Your task to perform on an android device: uninstall "Google Photos" Image 0: 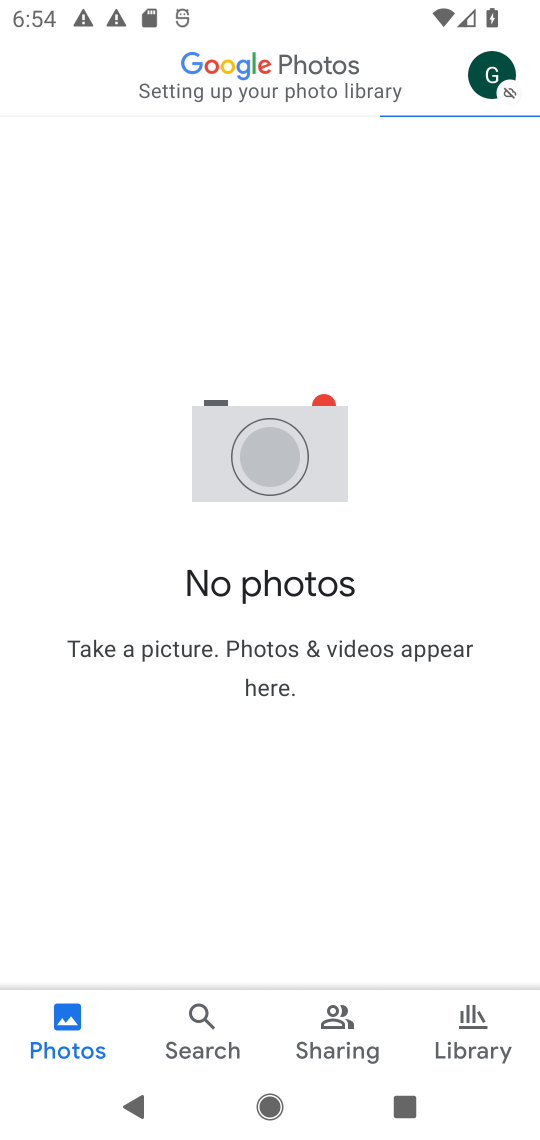
Step 0: press back button
Your task to perform on an android device: uninstall "Google Photos" Image 1: 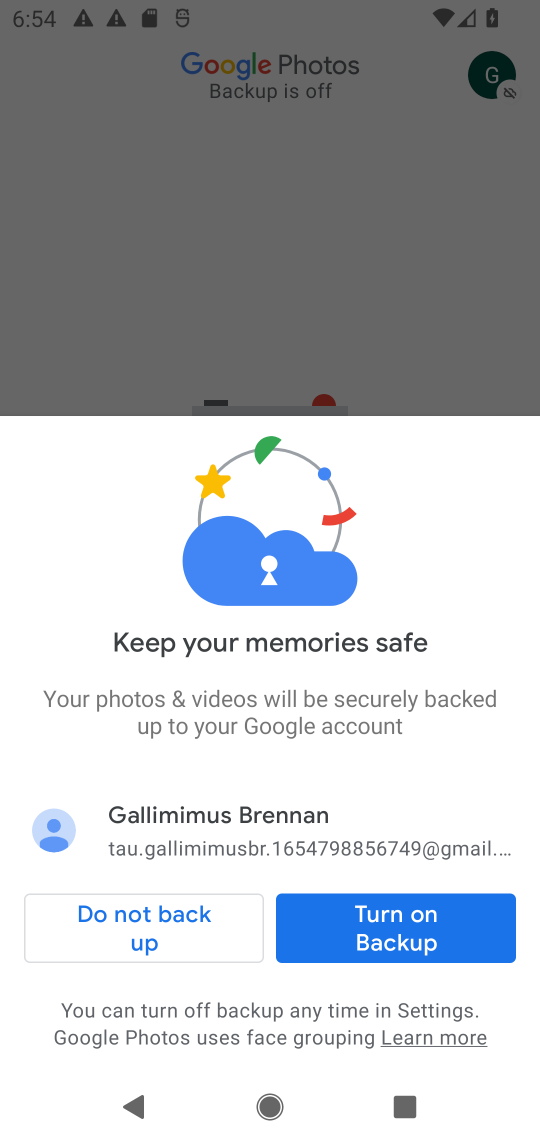
Step 1: click (236, 270)
Your task to perform on an android device: uninstall "Google Photos" Image 2: 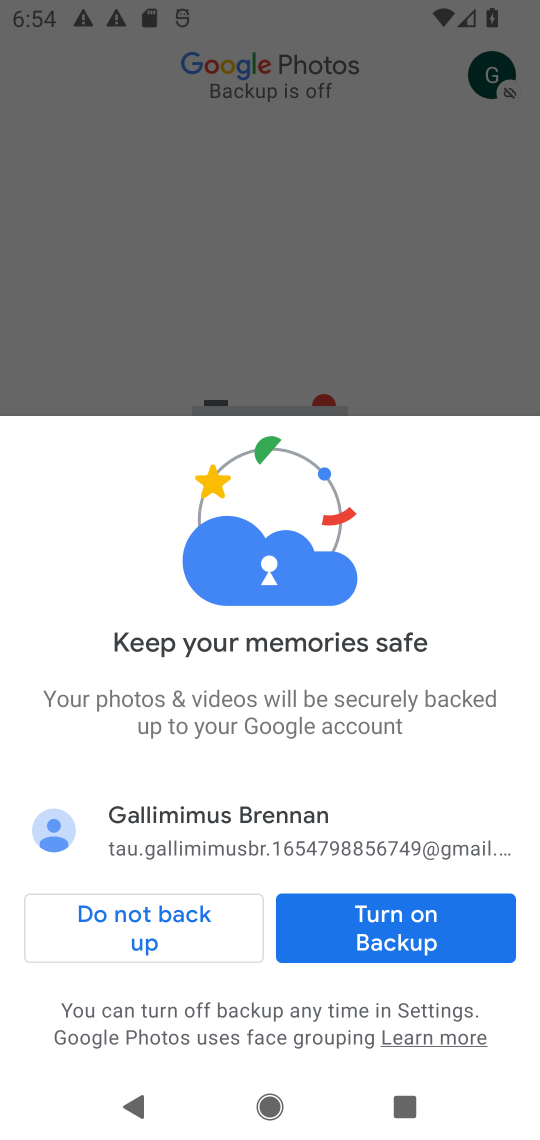
Step 2: click (237, 268)
Your task to perform on an android device: uninstall "Google Photos" Image 3: 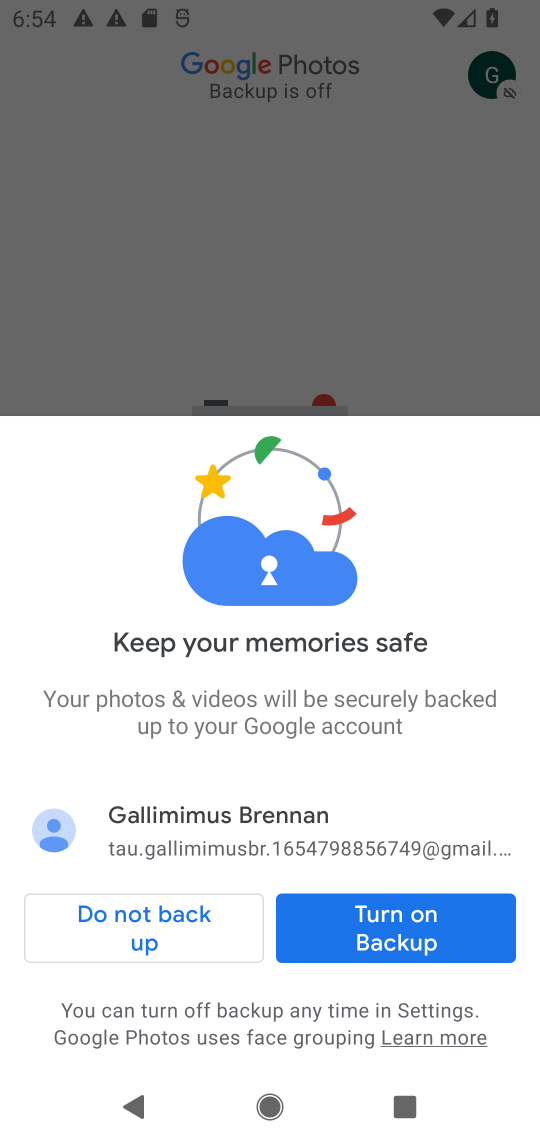
Step 3: click (237, 268)
Your task to perform on an android device: uninstall "Google Photos" Image 4: 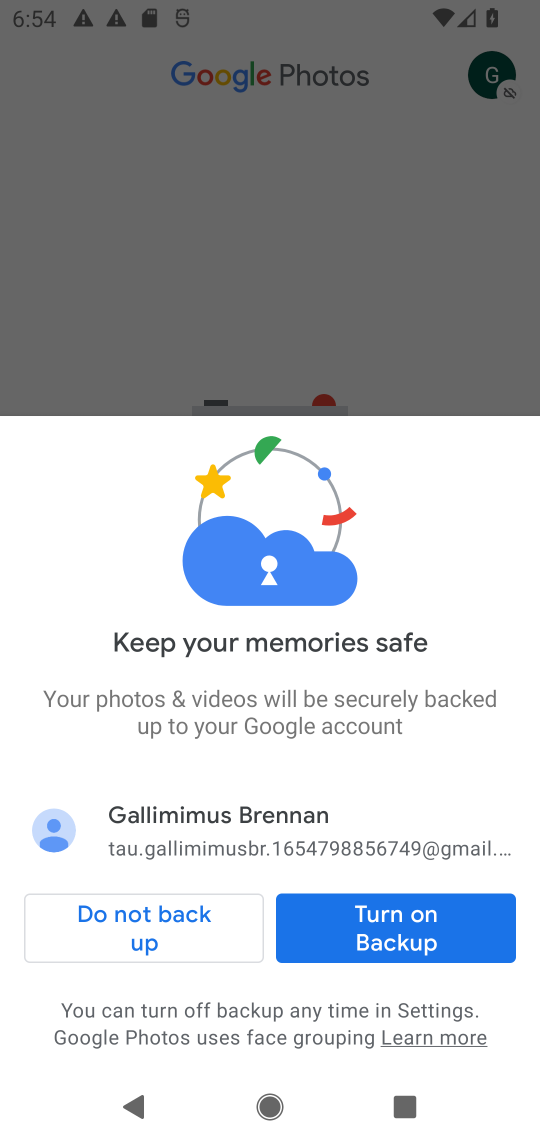
Step 4: click (436, 324)
Your task to perform on an android device: uninstall "Google Photos" Image 5: 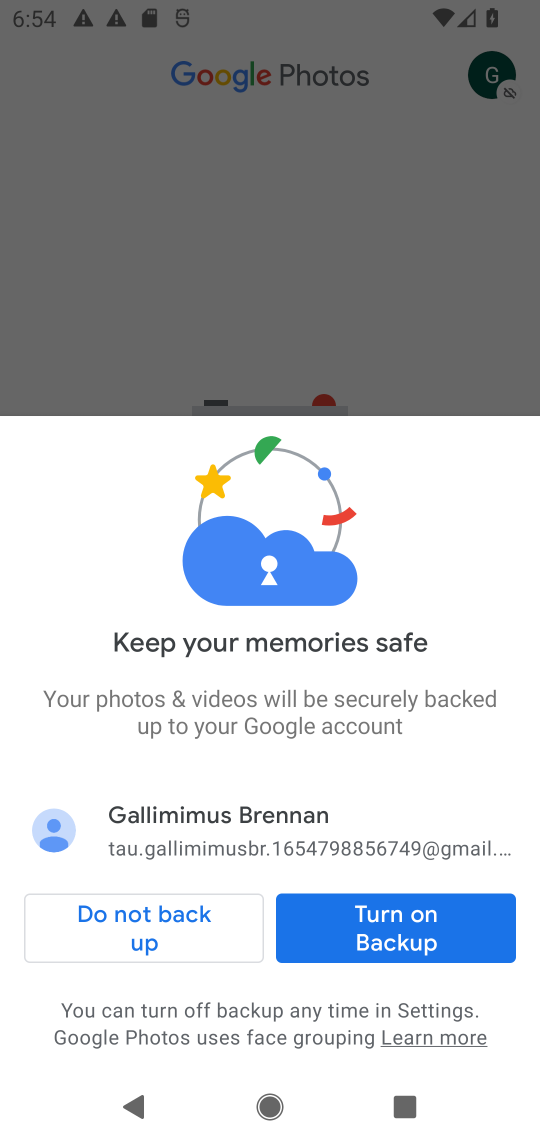
Step 5: press back button
Your task to perform on an android device: uninstall "Google Photos" Image 6: 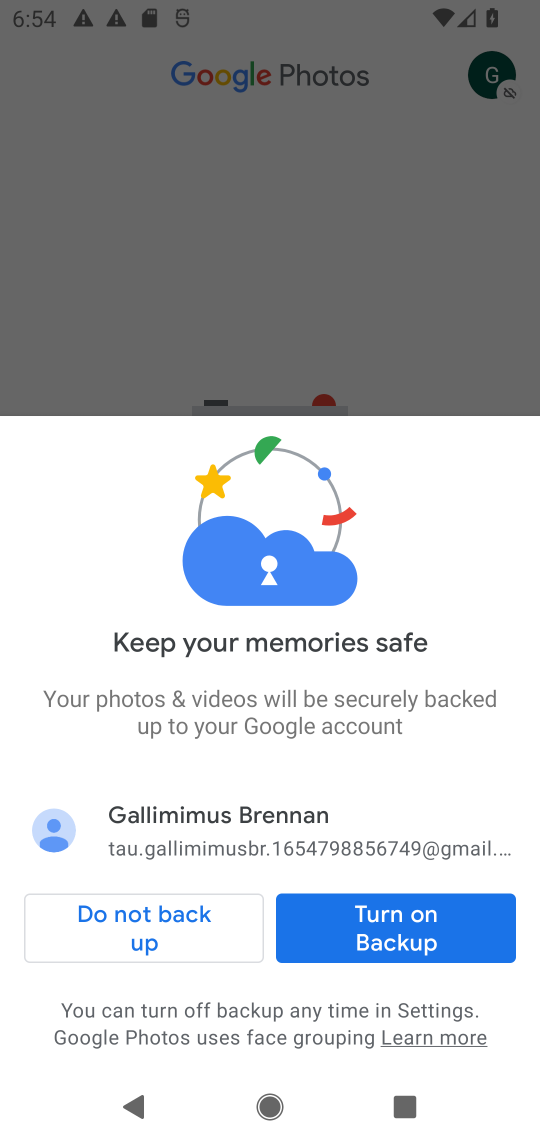
Step 6: press back button
Your task to perform on an android device: uninstall "Google Photos" Image 7: 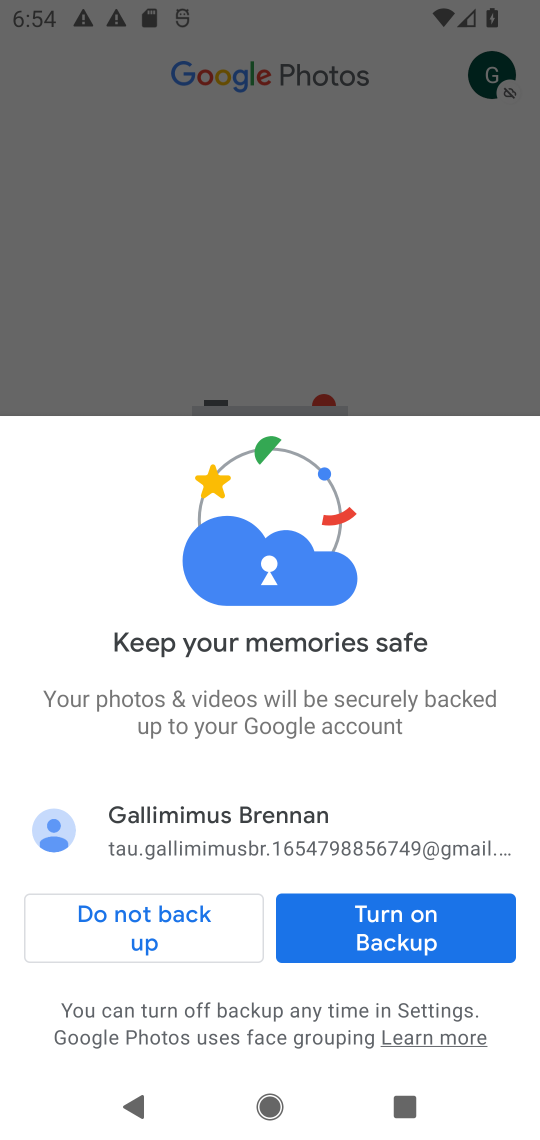
Step 7: press back button
Your task to perform on an android device: uninstall "Google Photos" Image 8: 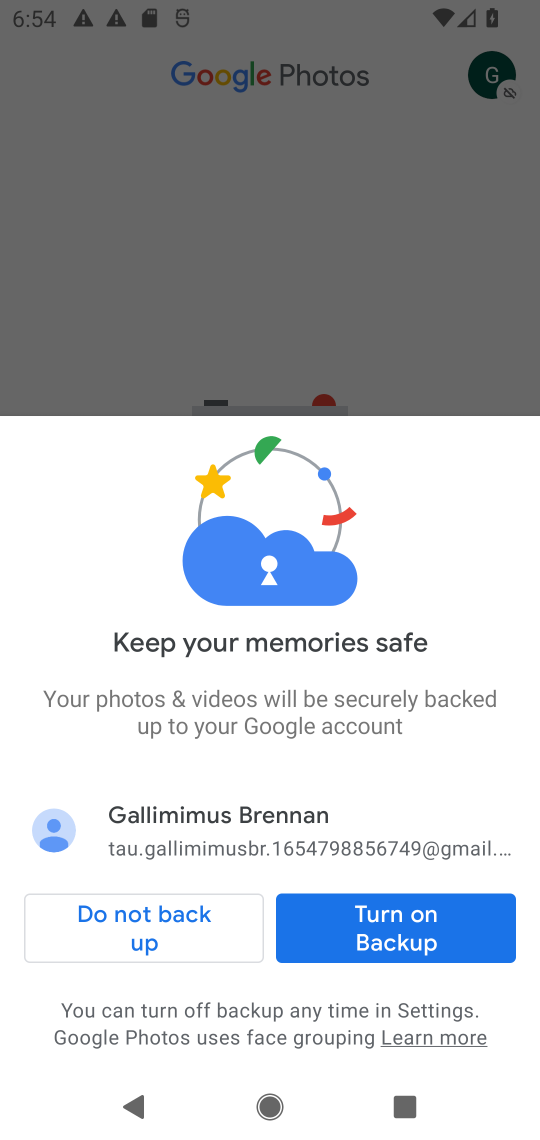
Step 8: press back button
Your task to perform on an android device: uninstall "Google Photos" Image 9: 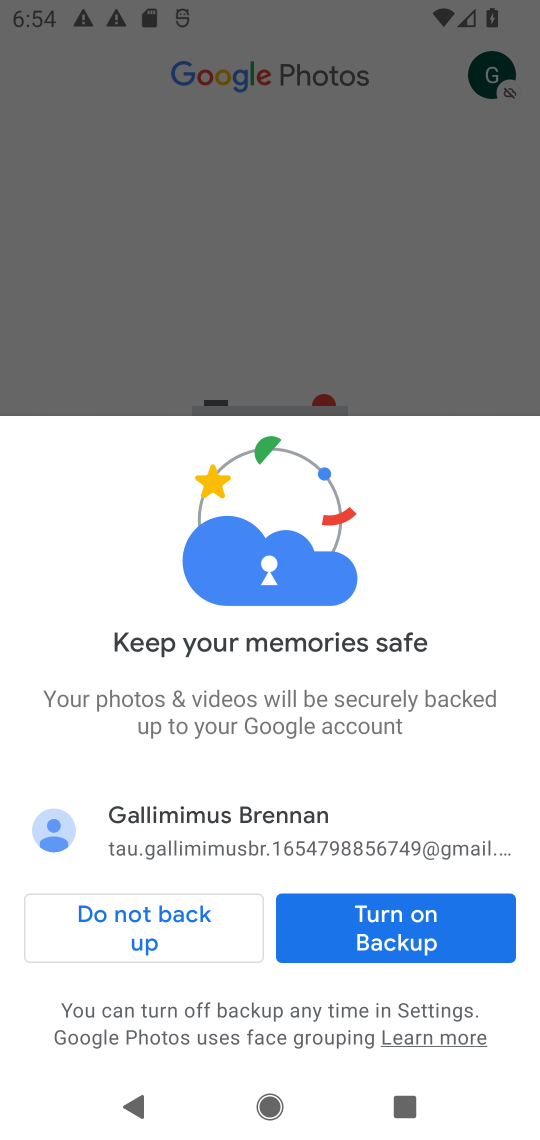
Step 9: click (354, 332)
Your task to perform on an android device: uninstall "Google Photos" Image 10: 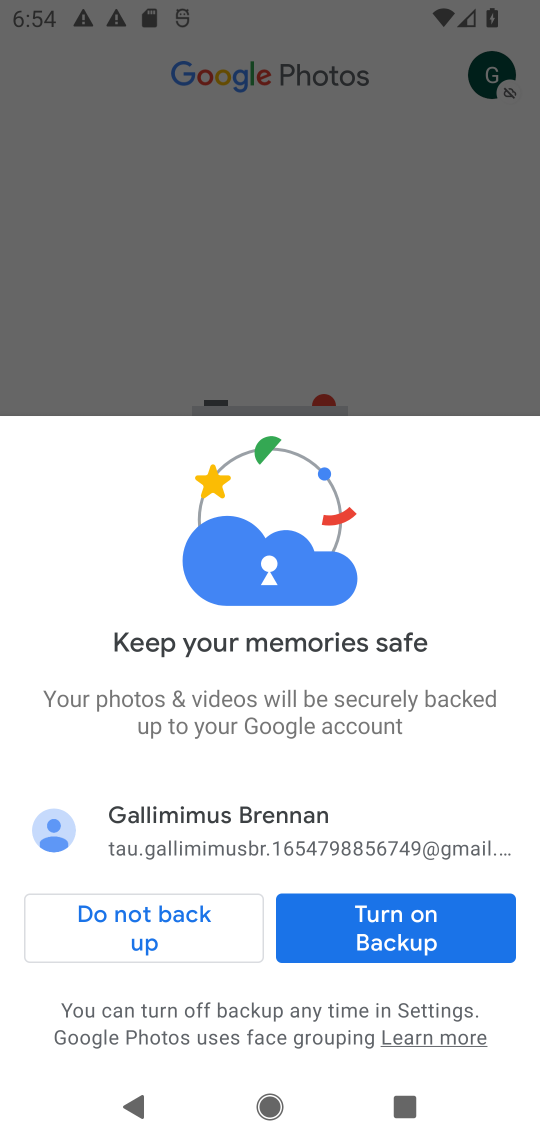
Step 10: click (351, 324)
Your task to perform on an android device: uninstall "Google Photos" Image 11: 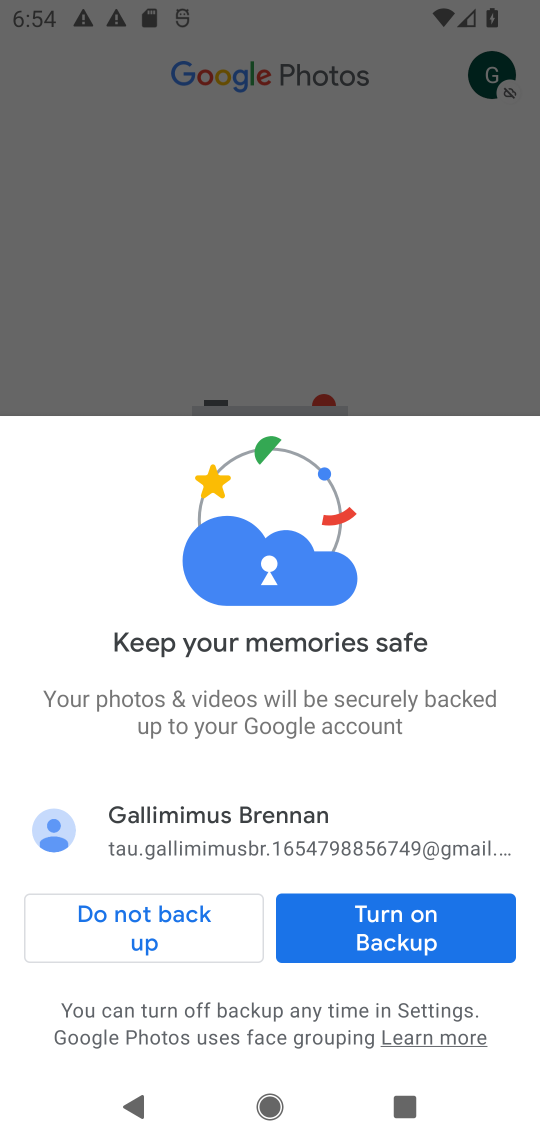
Step 11: click (352, 320)
Your task to perform on an android device: uninstall "Google Photos" Image 12: 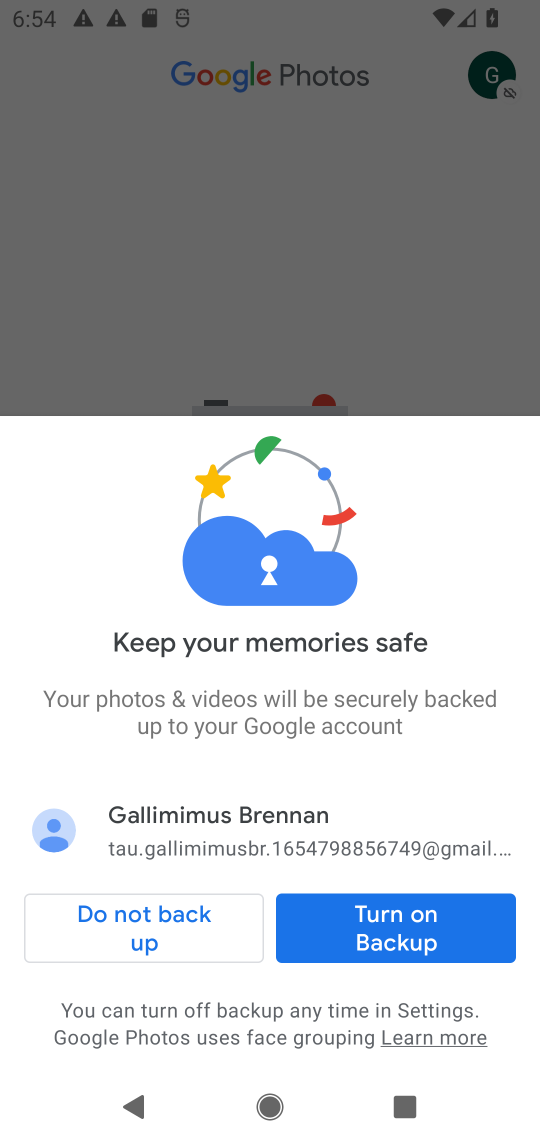
Step 12: click (355, 317)
Your task to perform on an android device: uninstall "Google Photos" Image 13: 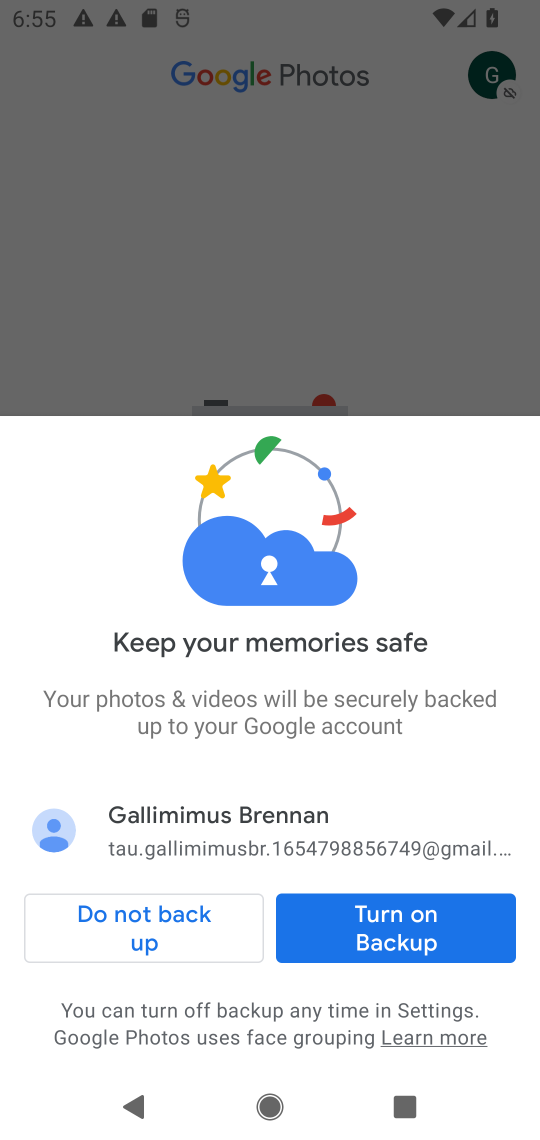
Step 13: click (277, 317)
Your task to perform on an android device: uninstall "Google Photos" Image 14: 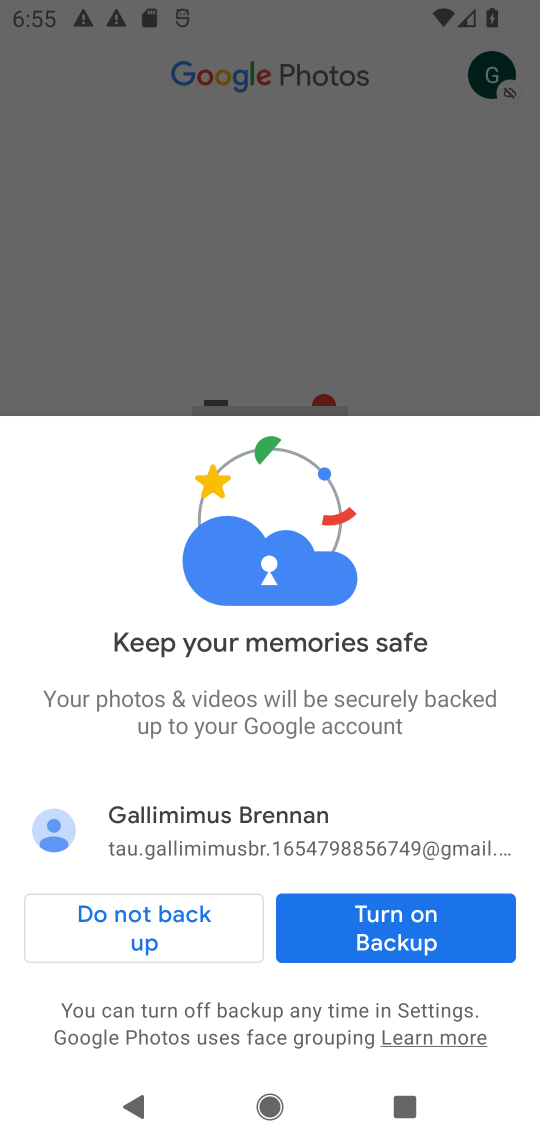
Step 14: click (301, 300)
Your task to perform on an android device: uninstall "Google Photos" Image 15: 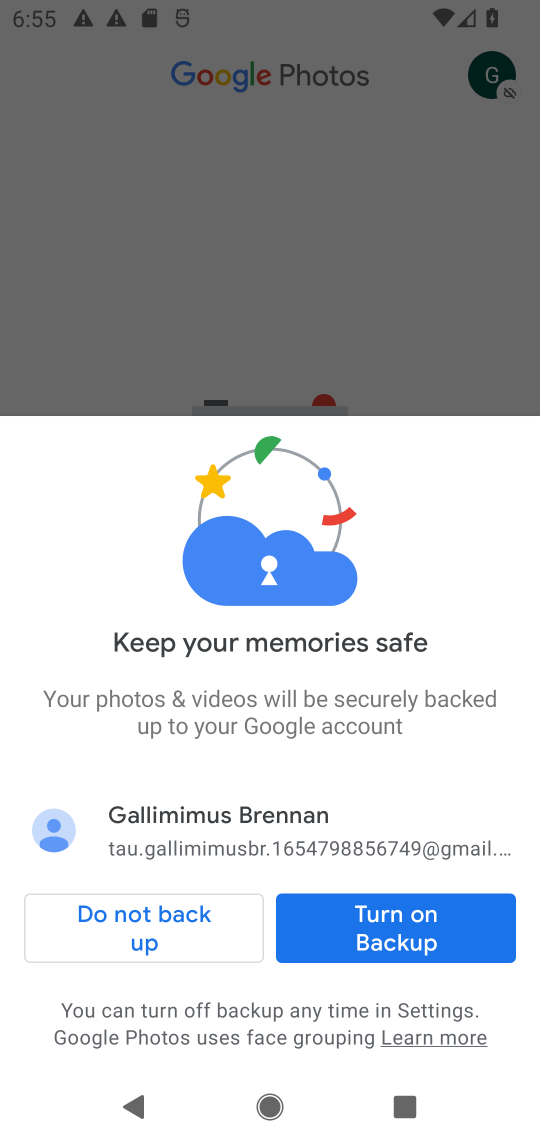
Step 15: click (306, 295)
Your task to perform on an android device: uninstall "Google Photos" Image 16: 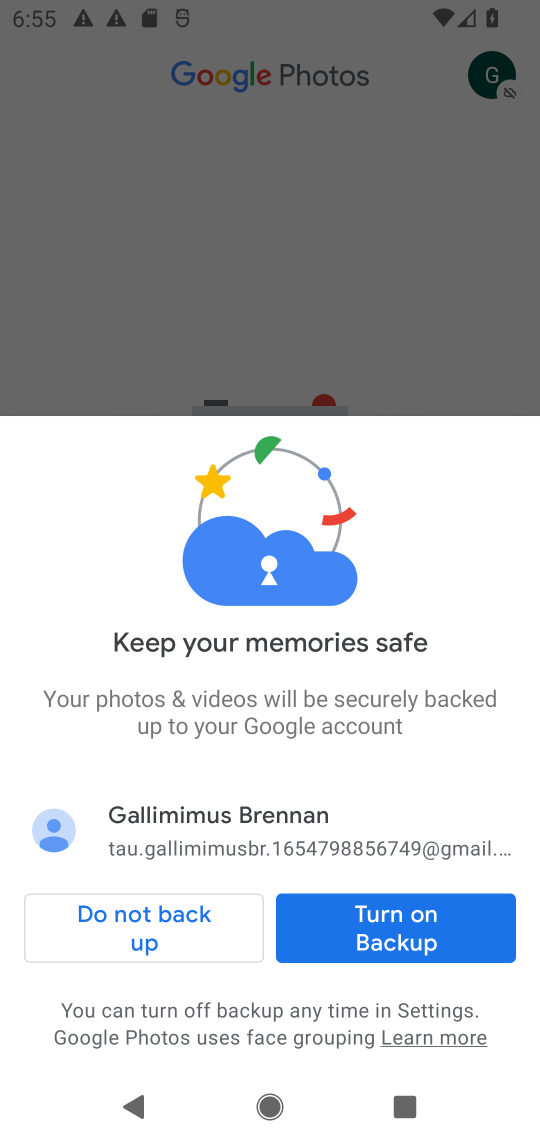
Step 16: press back button
Your task to perform on an android device: uninstall "Google Photos" Image 17: 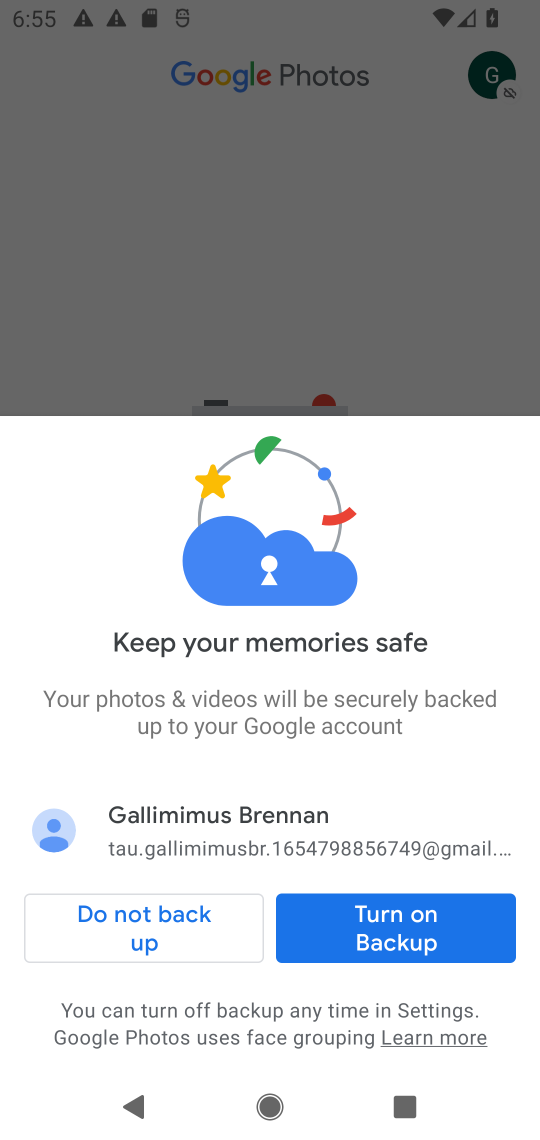
Step 17: press back button
Your task to perform on an android device: uninstall "Google Photos" Image 18: 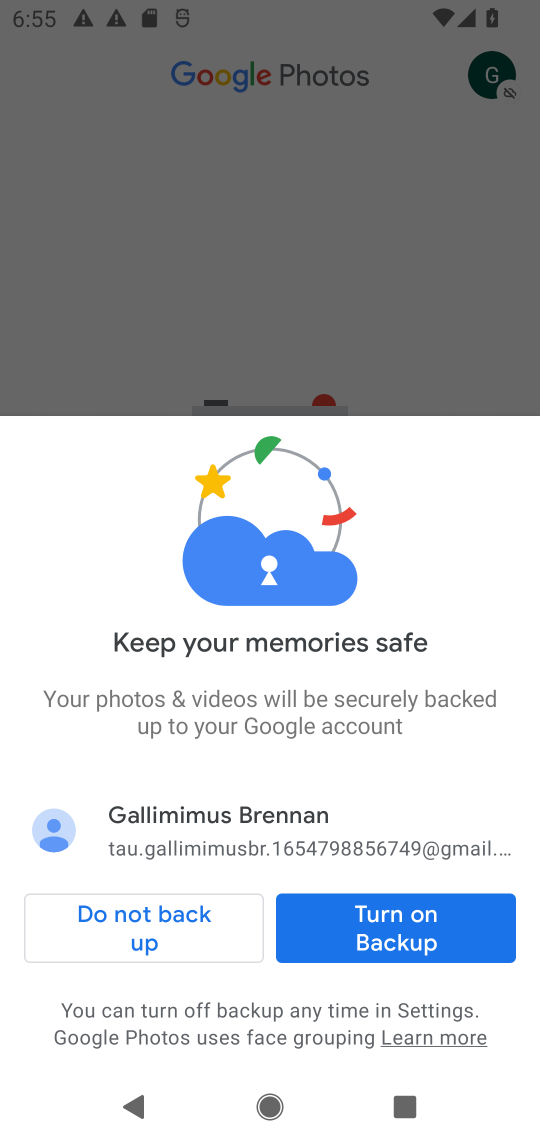
Step 18: click (188, 299)
Your task to perform on an android device: uninstall "Google Photos" Image 19: 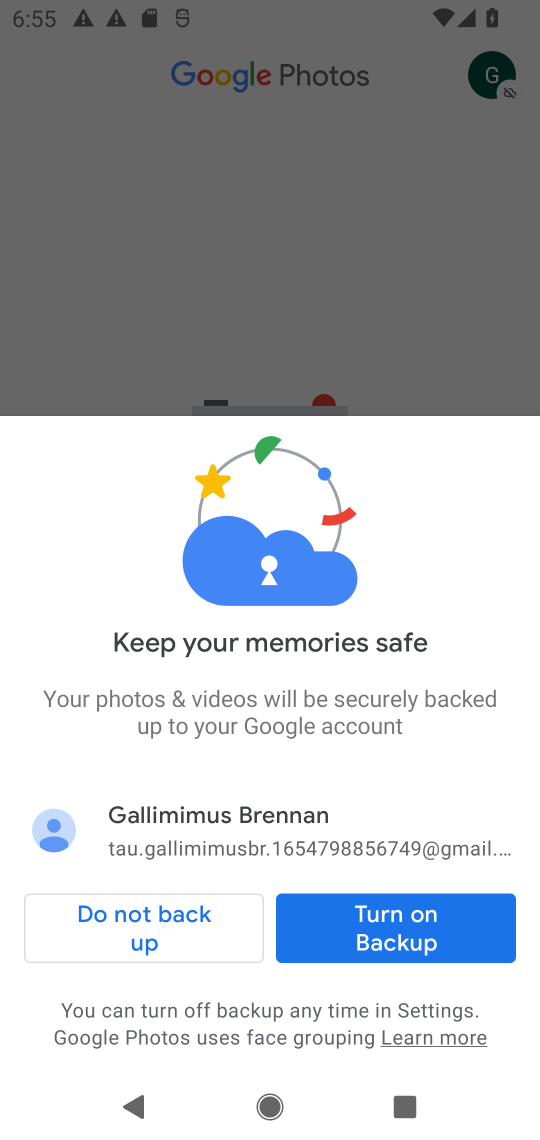
Step 19: click (188, 299)
Your task to perform on an android device: uninstall "Google Photos" Image 20: 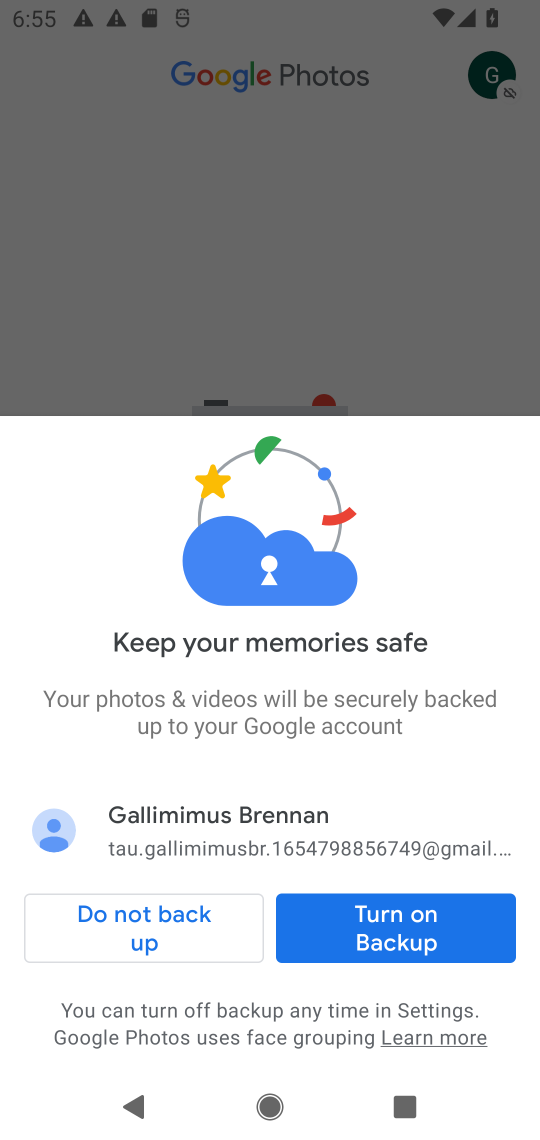
Step 20: click (189, 301)
Your task to perform on an android device: uninstall "Google Photos" Image 21: 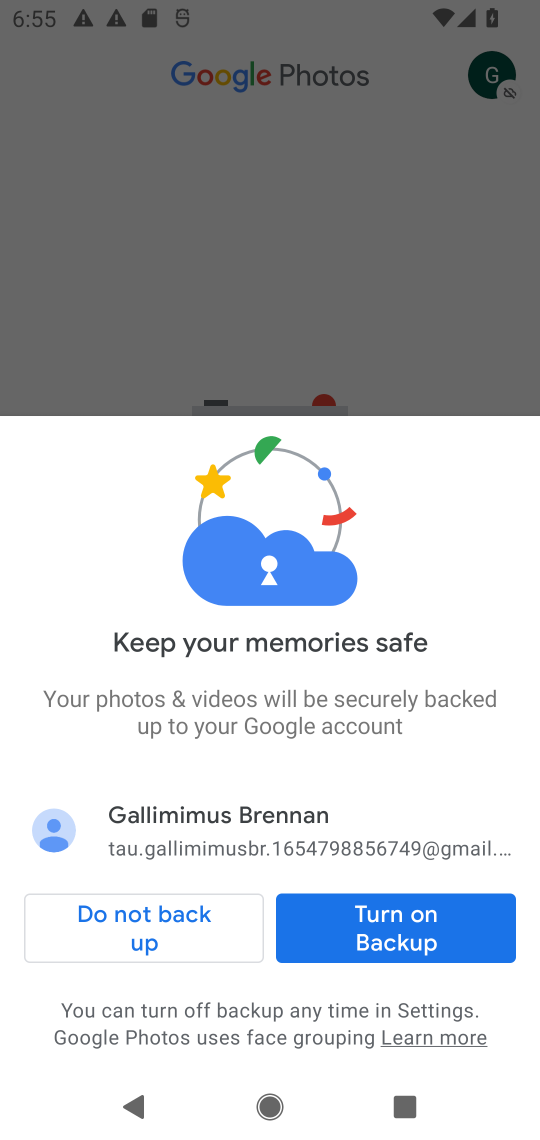
Step 21: press home button
Your task to perform on an android device: uninstall "Google Photos" Image 22: 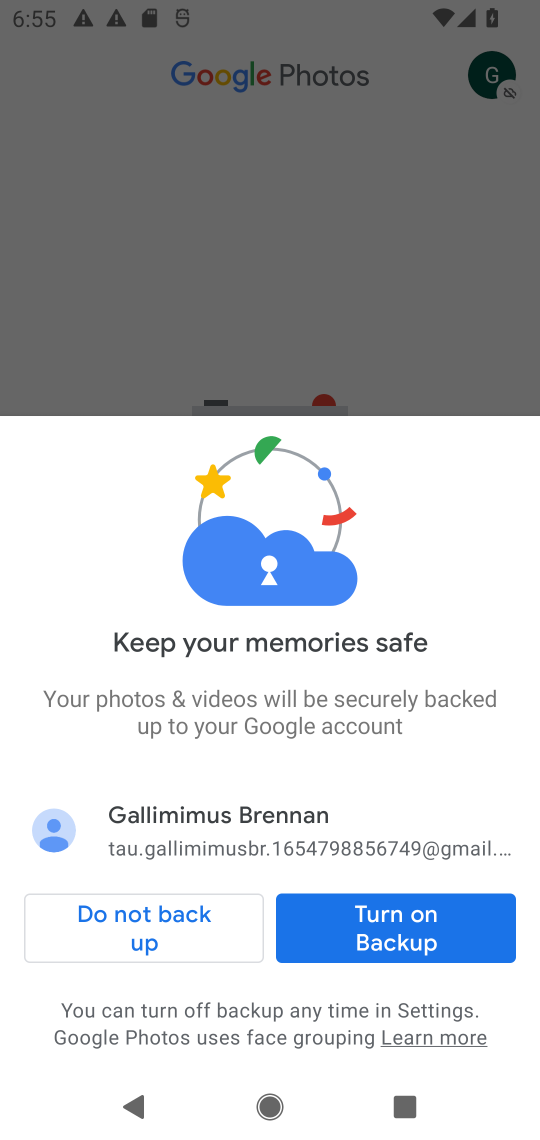
Step 22: press home button
Your task to perform on an android device: uninstall "Google Photos" Image 23: 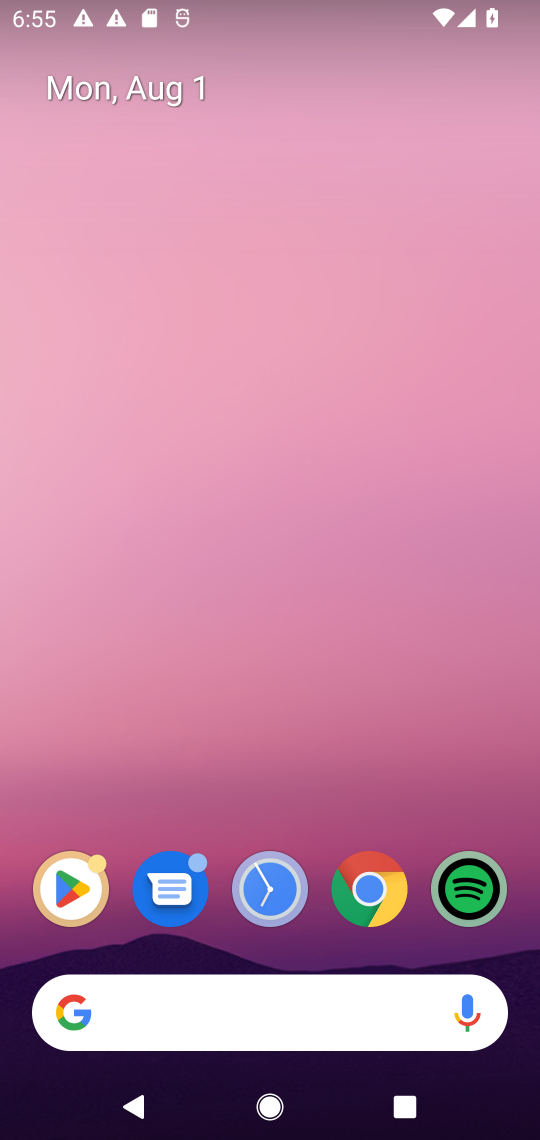
Step 23: drag from (331, 919) to (343, 246)
Your task to perform on an android device: uninstall "Google Photos" Image 24: 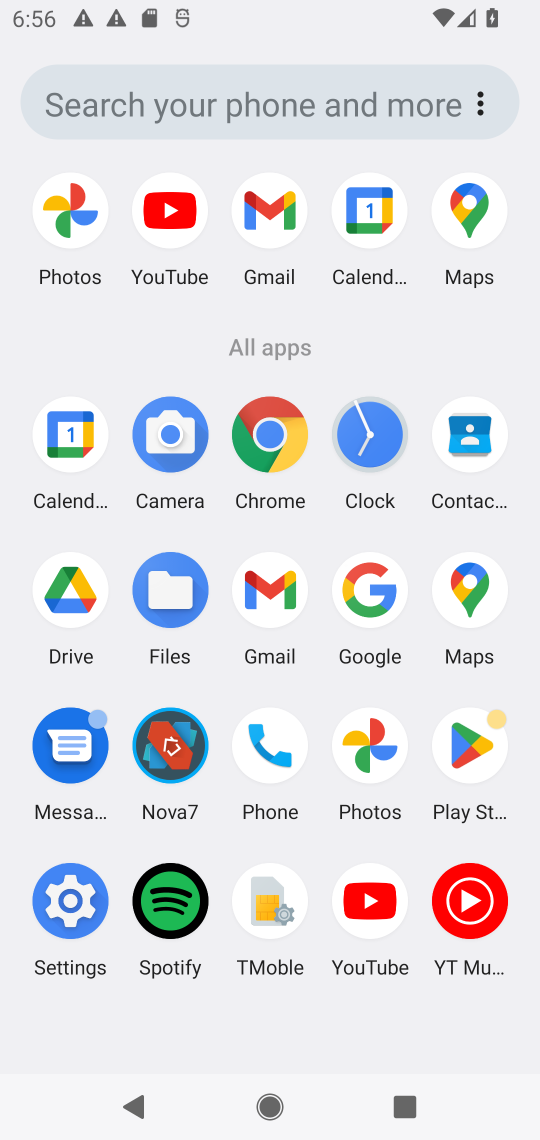
Step 24: click (453, 756)
Your task to perform on an android device: uninstall "Google Photos" Image 25: 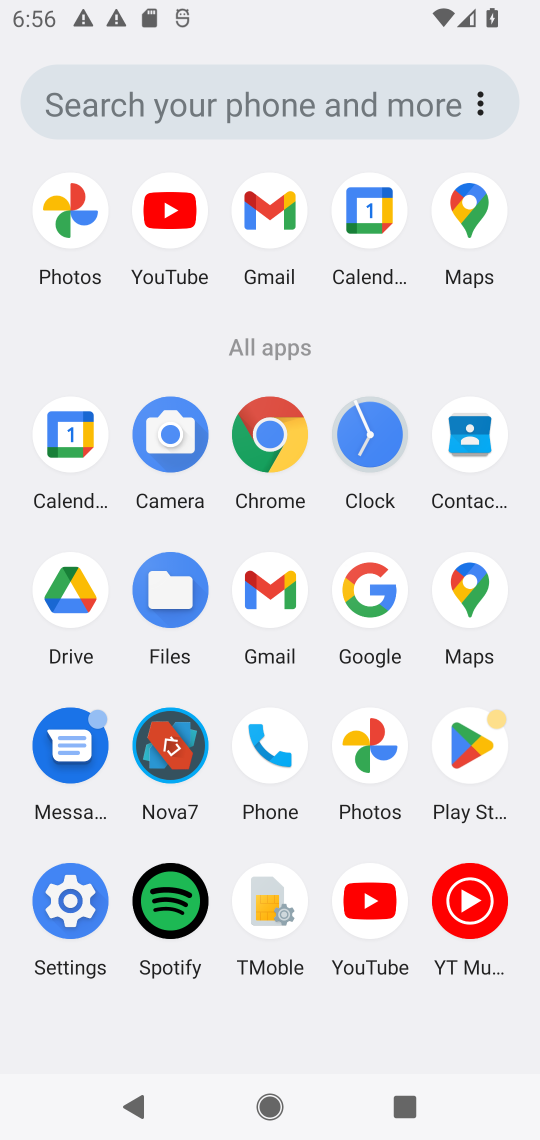
Step 25: click (471, 737)
Your task to perform on an android device: uninstall "Google Photos" Image 26: 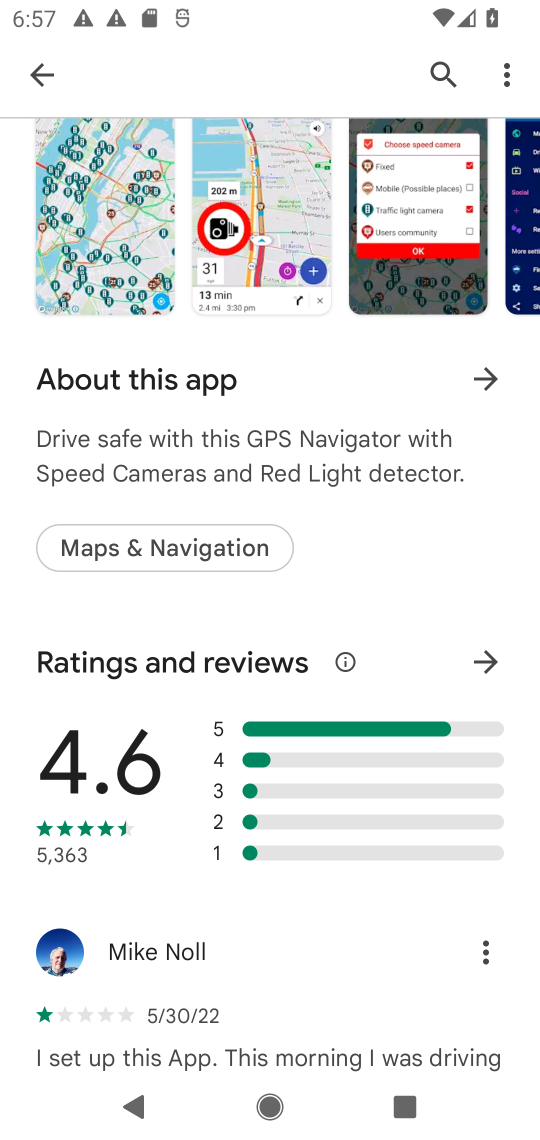
Step 26: click (41, 63)
Your task to perform on an android device: uninstall "Google Photos" Image 27: 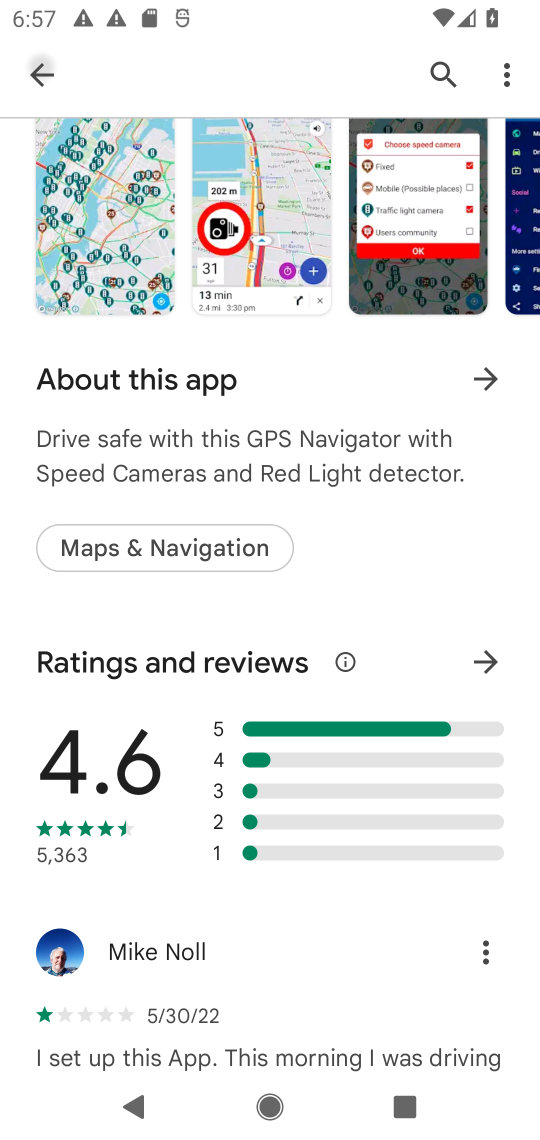
Step 27: click (32, 73)
Your task to perform on an android device: uninstall "Google Photos" Image 28: 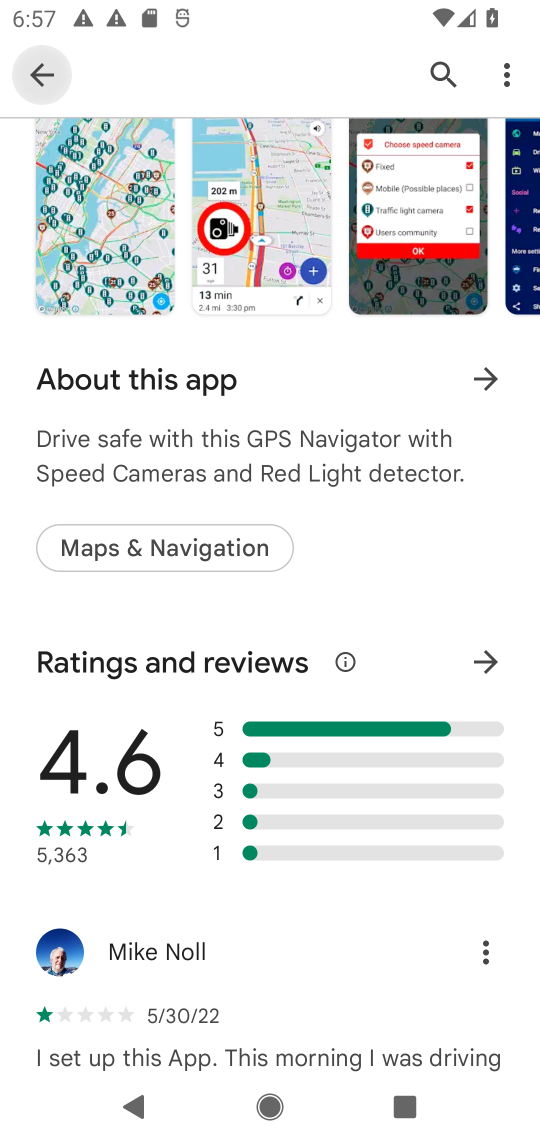
Step 28: click (32, 73)
Your task to perform on an android device: uninstall "Google Photos" Image 29: 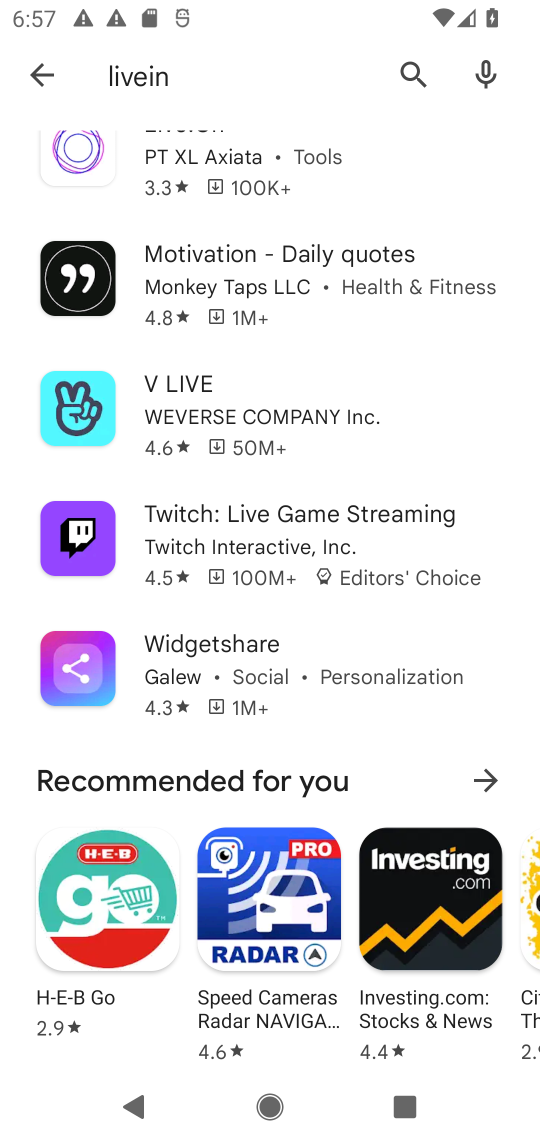
Step 29: click (38, 73)
Your task to perform on an android device: uninstall "Google Photos" Image 30: 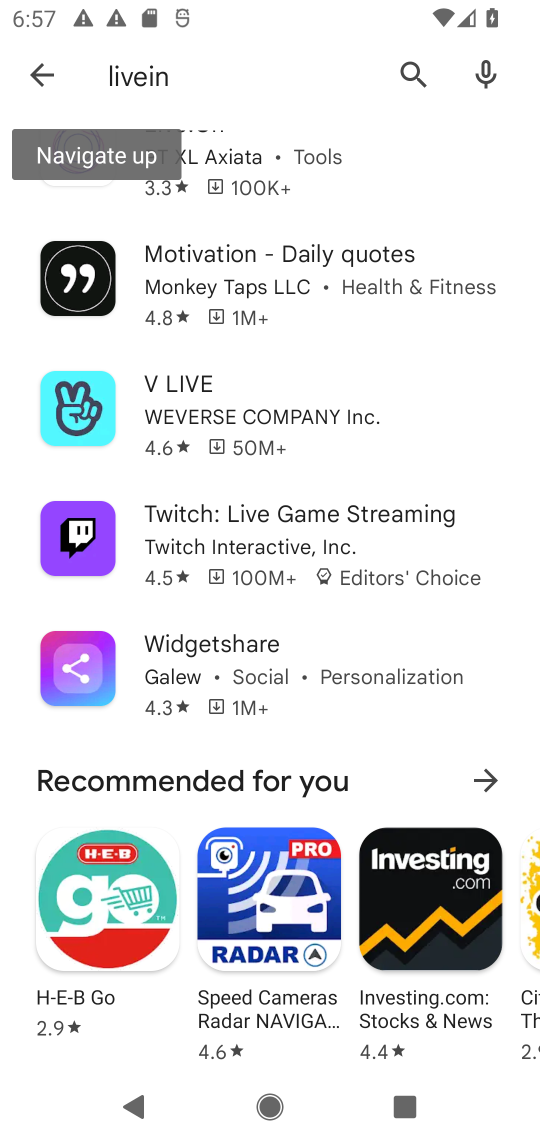
Step 30: click (36, 69)
Your task to perform on an android device: uninstall "Google Photos" Image 31: 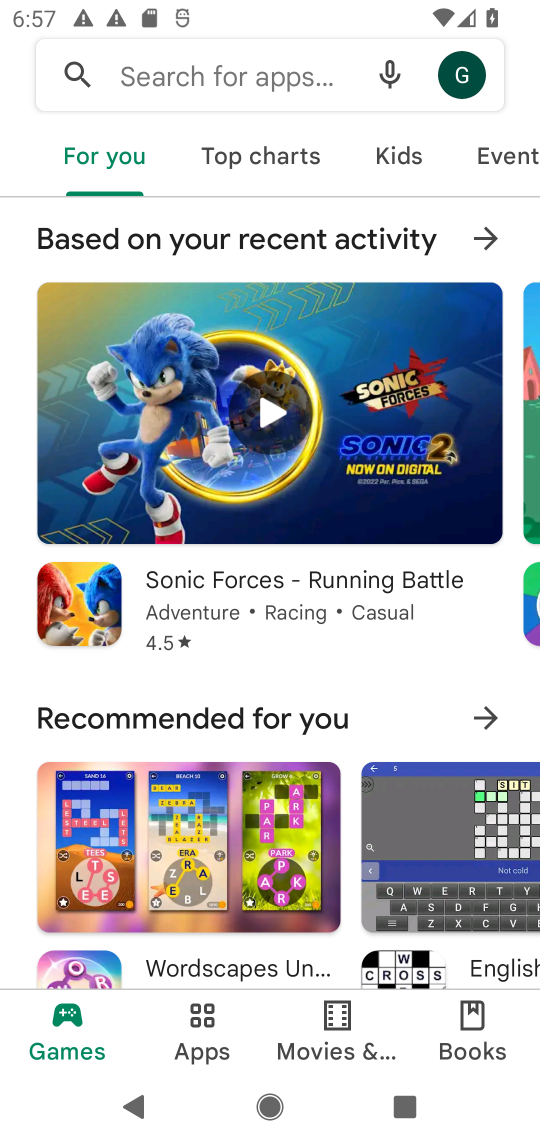
Step 31: click (225, 88)
Your task to perform on an android device: uninstall "Google Photos" Image 32: 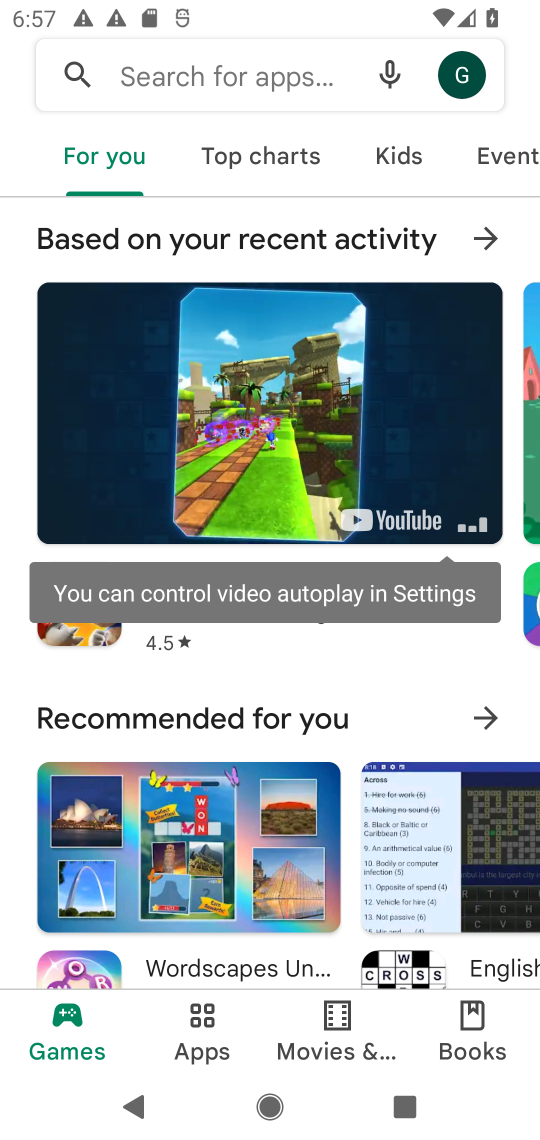
Step 32: click (216, 80)
Your task to perform on an android device: uninstall "Google Photos" Image 33: 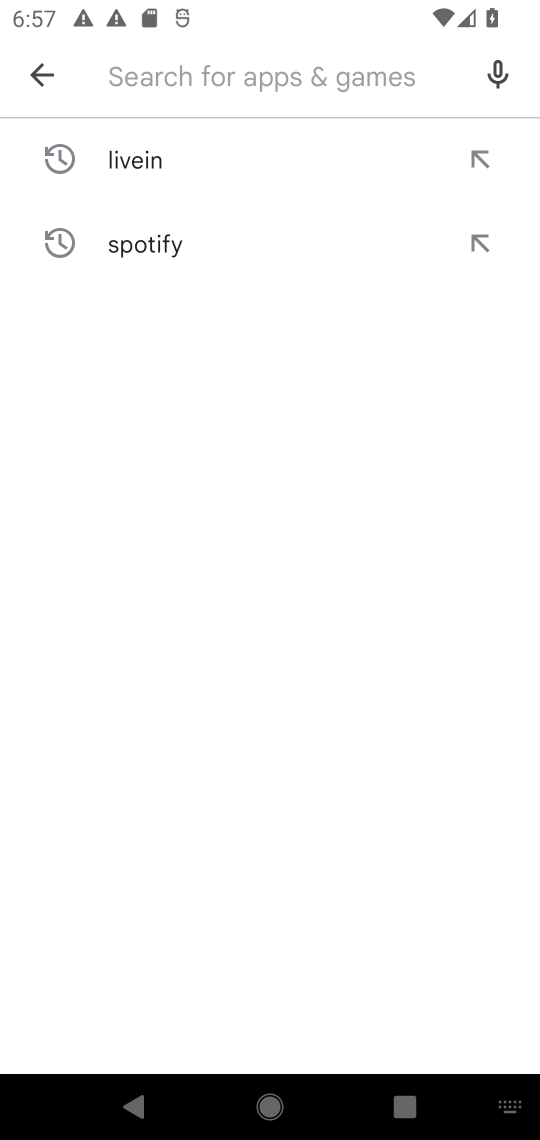
Step 33: click (185, 75)
Your task to perform on an android device: uninstall "Google Photos" Image 34: 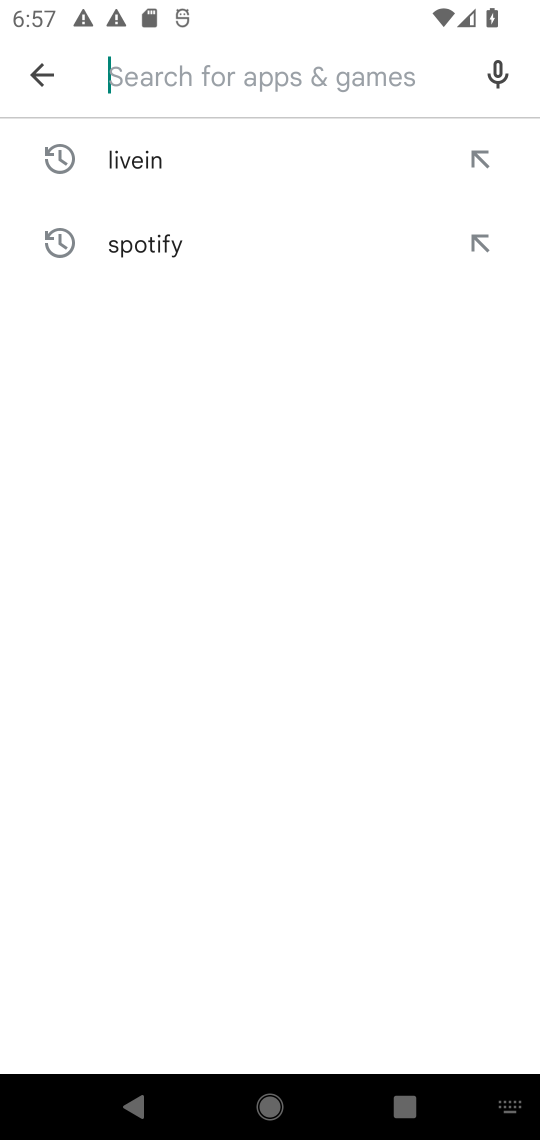
Step 34: click (187, 73)
Your task to perform on an android device: uninstall "Google Photos" Image 35: 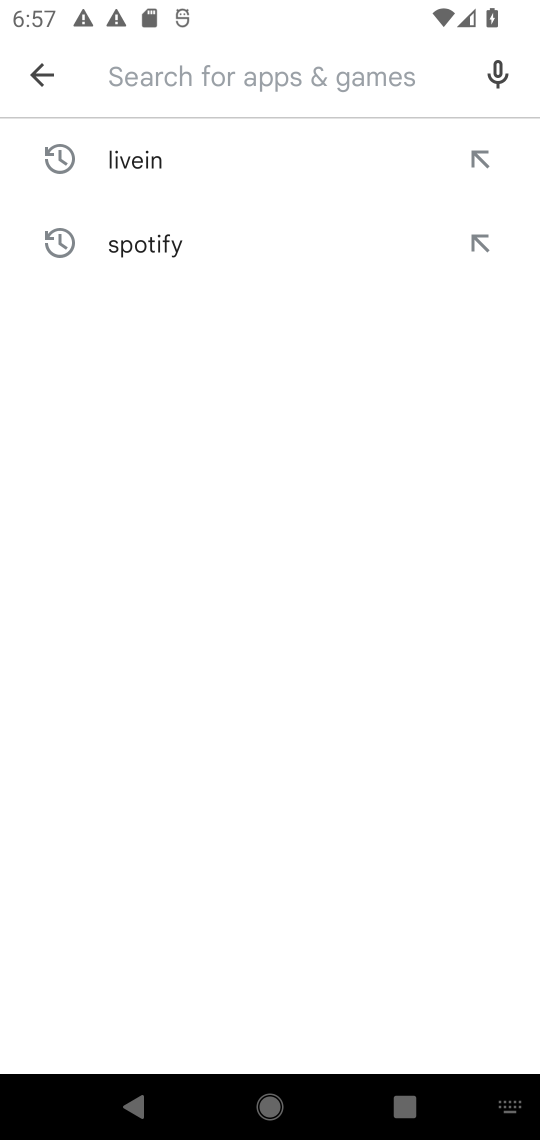
Step 35: type "Google Photos"
Your task to perform on an android device: uninstall "Google Photos" Image 36: 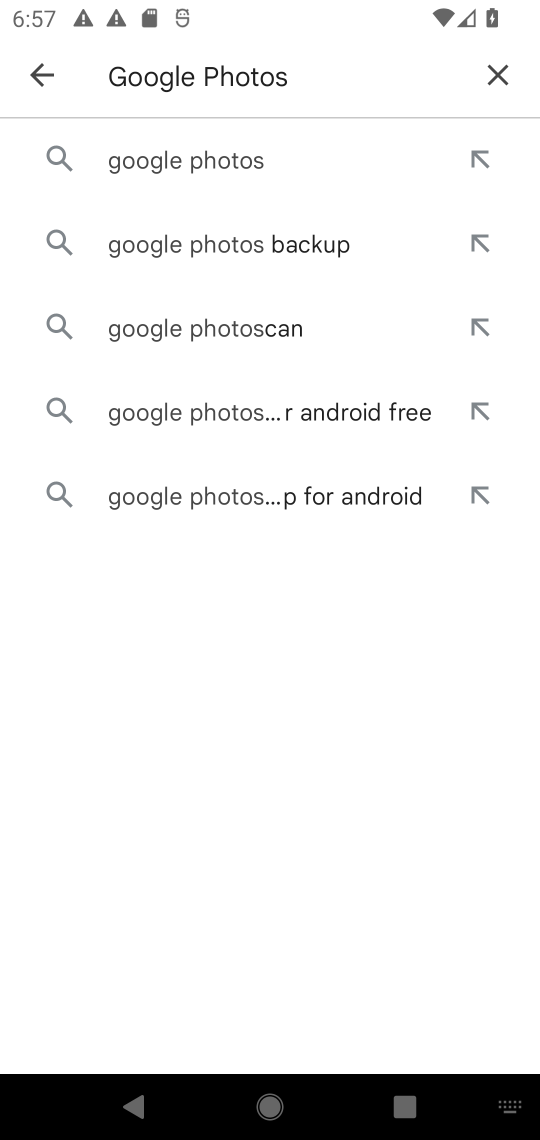
Step 36: click (203, 160)
Your task to perform on an android device: uninstall "Google Photos" Image 37: 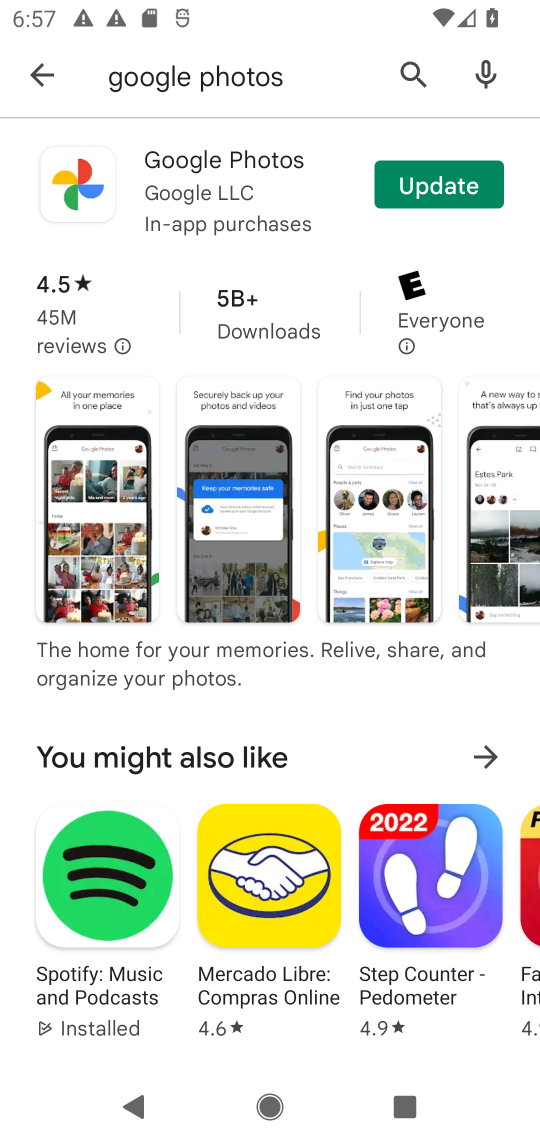
Step 37: click (210, 160)
Your task to perform on an android device: uninstall "Google Photos" Image 38: 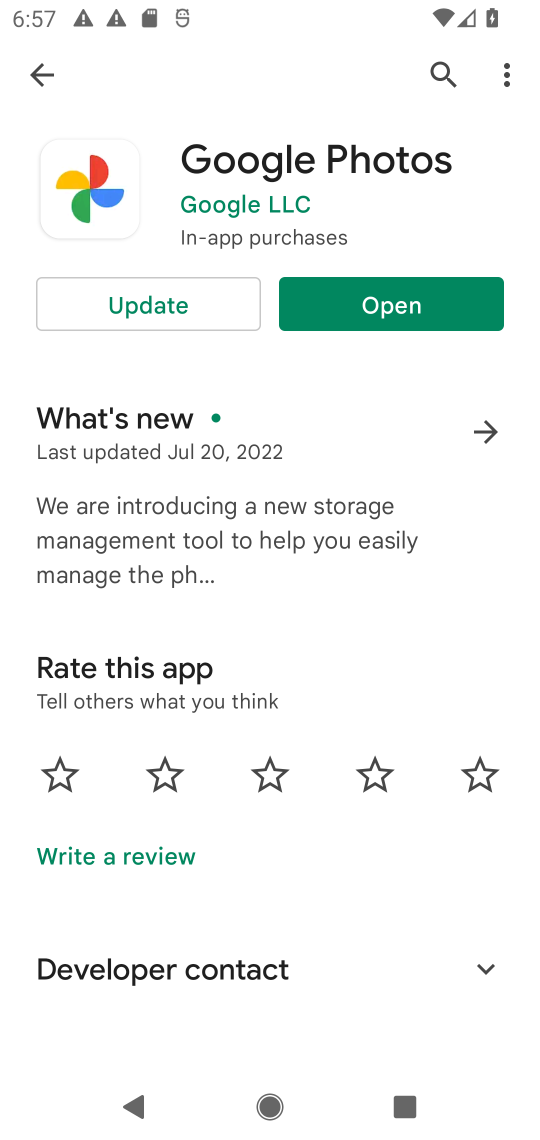
Step 38: click (35, 72)
Your task to perform on an android device: uninstall "Google Photos" Image 39: 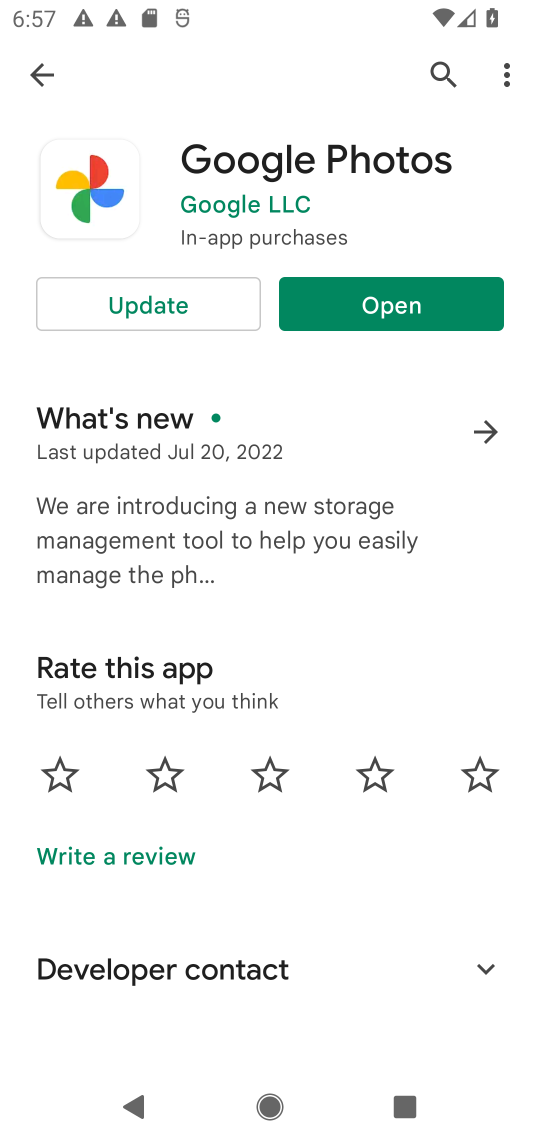
Step 39: drag from (507, 75) to (412, 469)
Your task to perform on an android device: uninstall "Google Photos" Image 40: 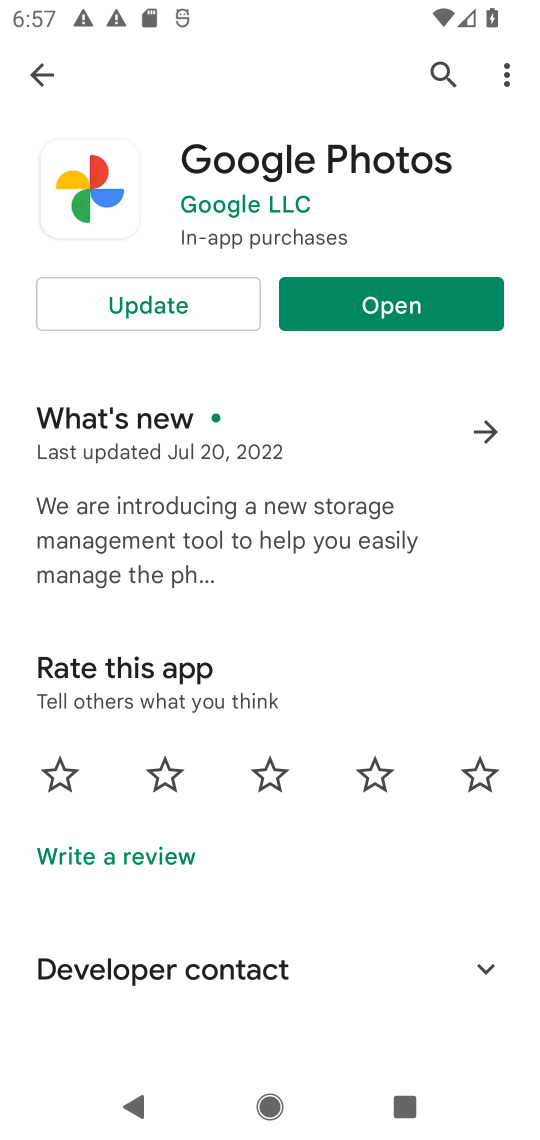
Step 40: click (404, 438)
Your task to perform on an android device: uninstall "Google Photos" Image 41: 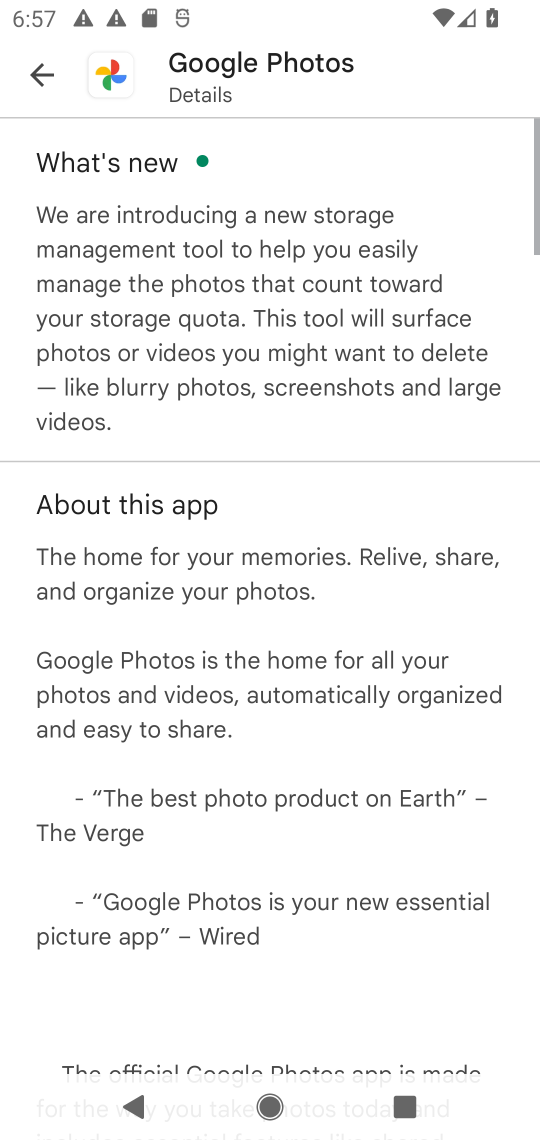
Step 41: drag from (157, 541) to (126, 259)
Your task to perform on an android device: uninstall "Google Photos" Image 42: 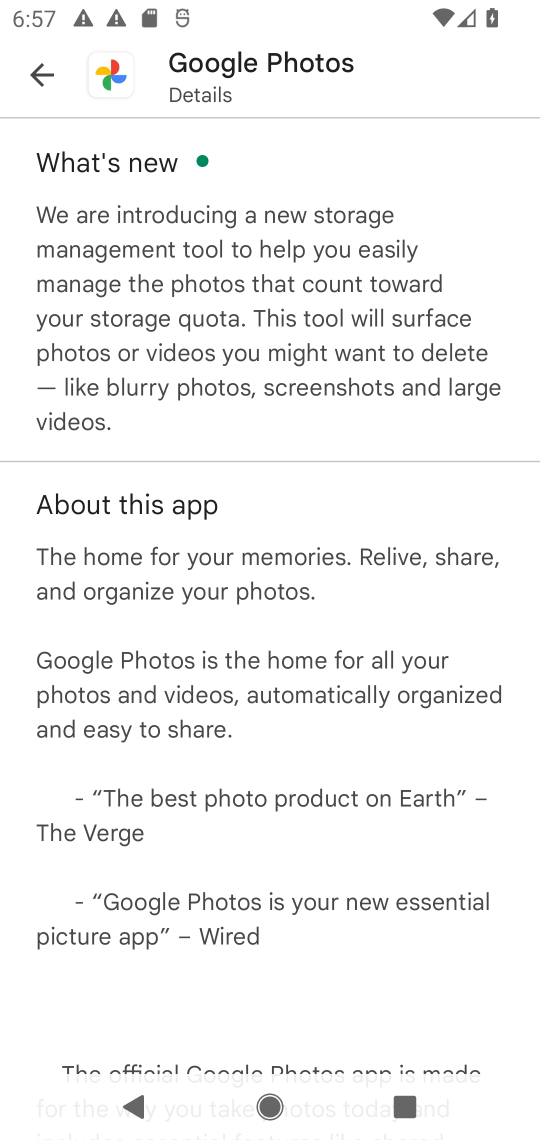
Step 42: click (23, 63)
Your task to perform on an android device: uninstall "Google Photos" Image 43: 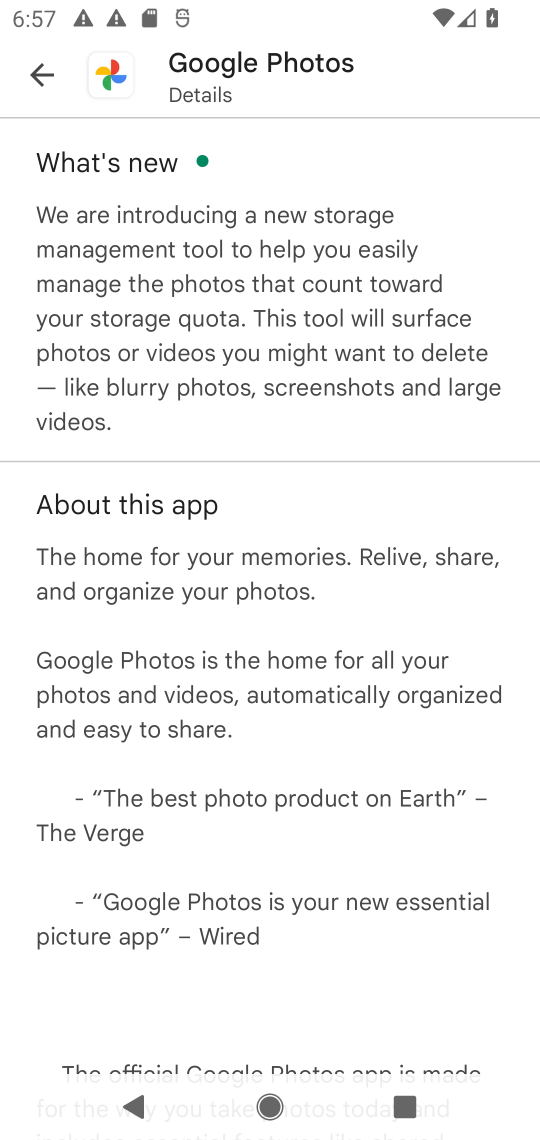
Step 43: click (32, 78)
Your task to perform on an android device: uninstall "Google Photos" Image 44: 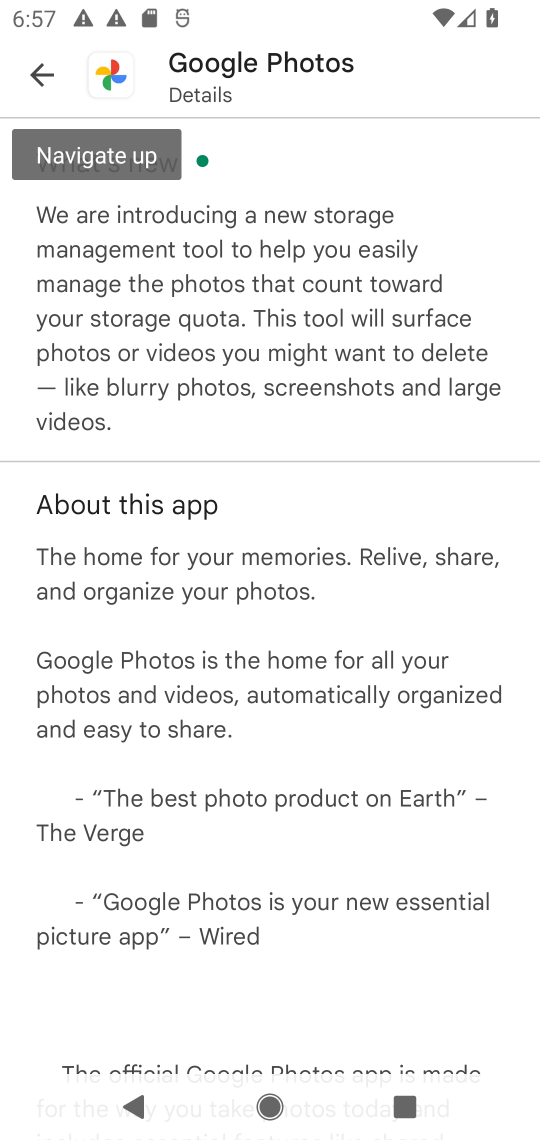
Step 44: drag from (268, 540) to (233, 49)
Your task to perform on an android device: uninstall "Google Photos" Image 45: 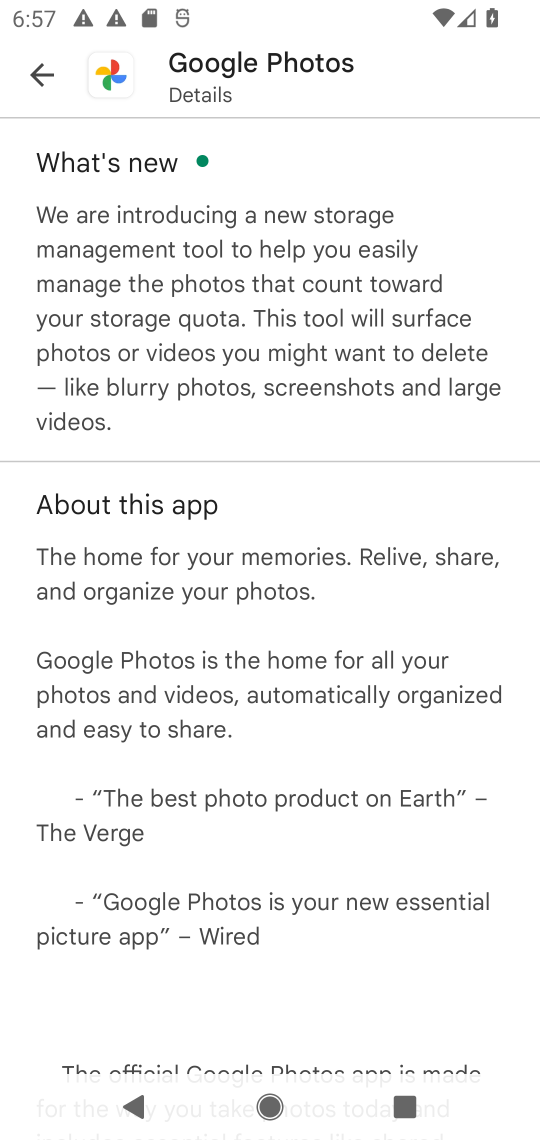
Step 45: drag from (254, 633) to (328, 314)
Your task to perform on an android device: uninstall "Google Photos" Image 46: 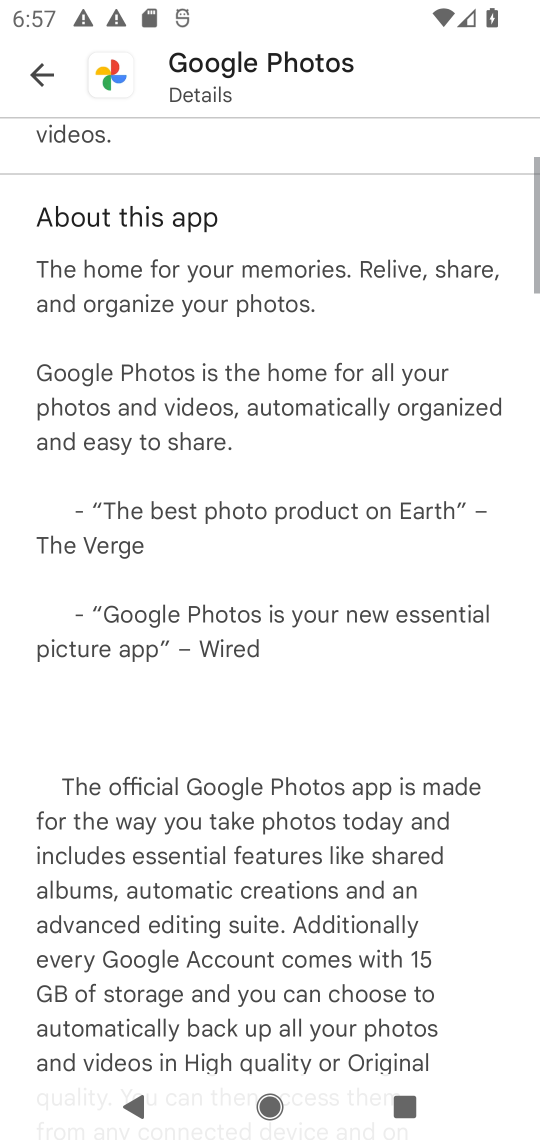
Step 46: drag from (315, 448) to (404, 935)
Your task to perform on an android device: uninstall "Google Photos" Image 47: 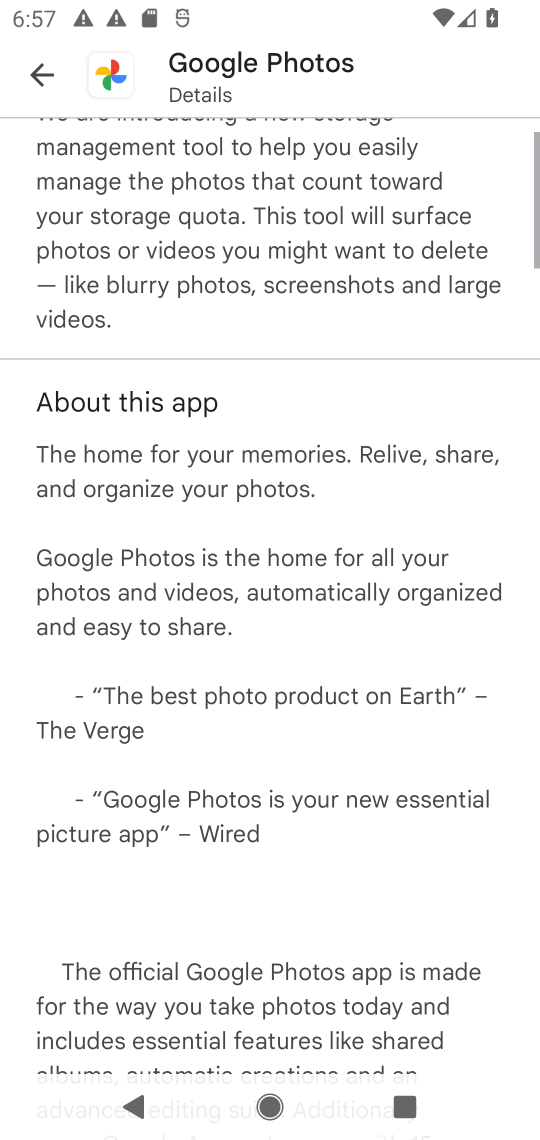
Step 47: drag from (212, 441) to (188, 797)
Your task to perform on an android device: uninstall "Google Photos" Image 48: 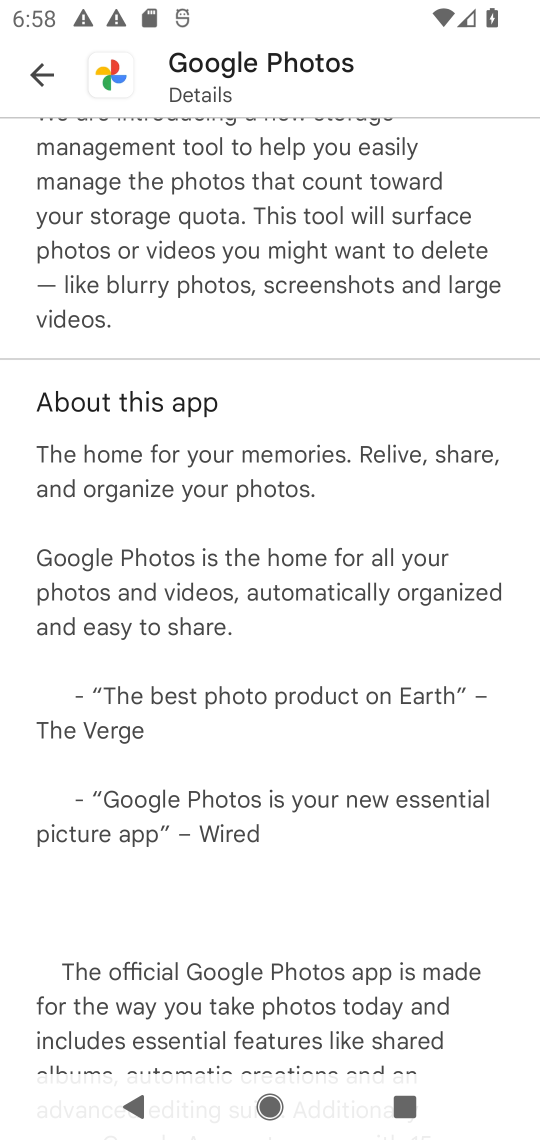
Step 48: click (29, 76)
Your task to perform on an android device: uninstall "Google Photos" Image 49: 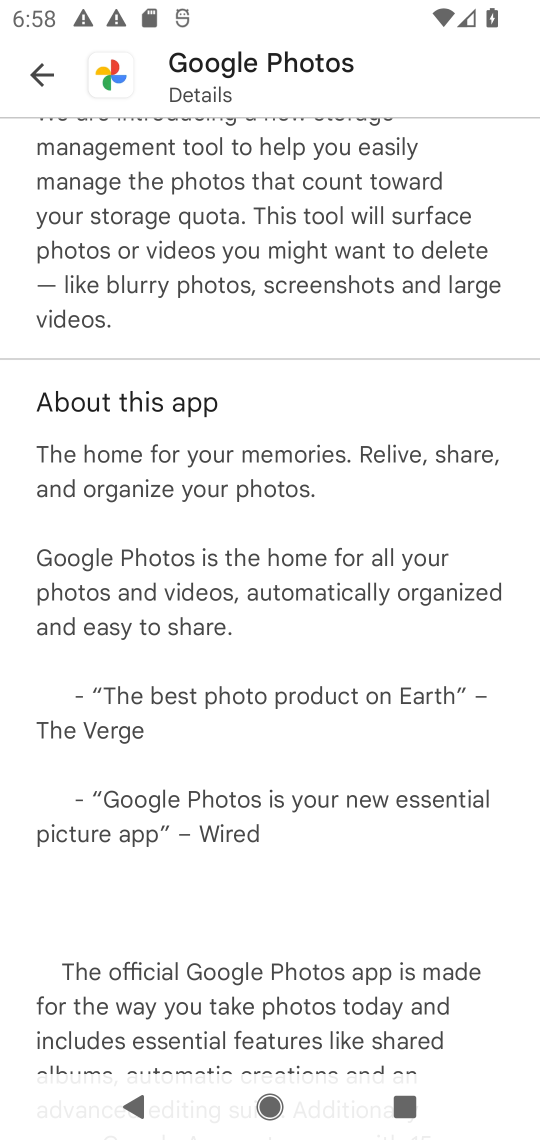
Step 49: click (35, 69)
Your task to perform on an android device: uninstall "Google Photos" Image 50: 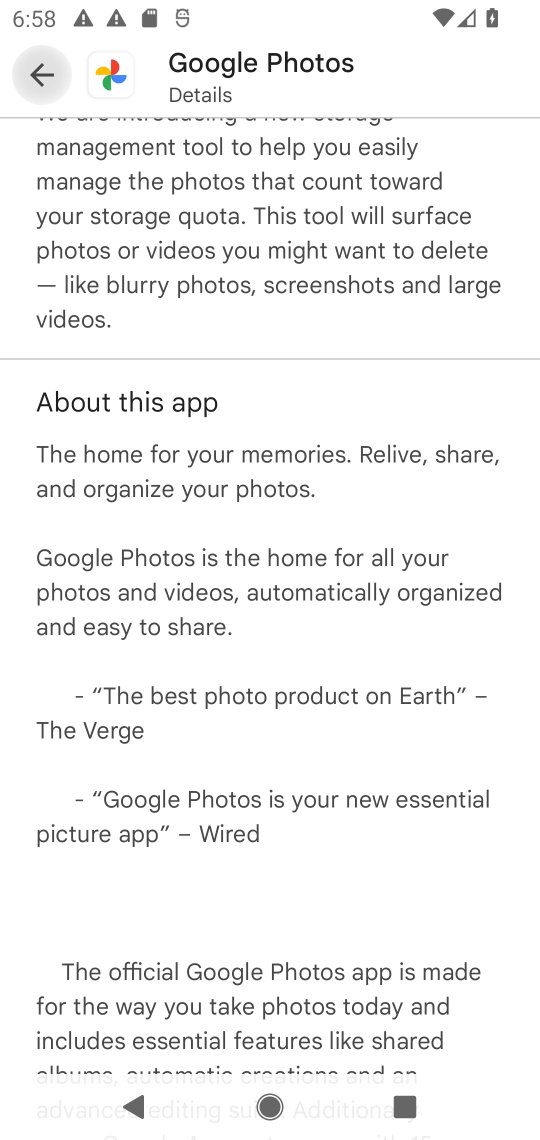
Step 50: click (34, 67)
Your task to perform on an android device: uninstall "Google Photos" Image 51: 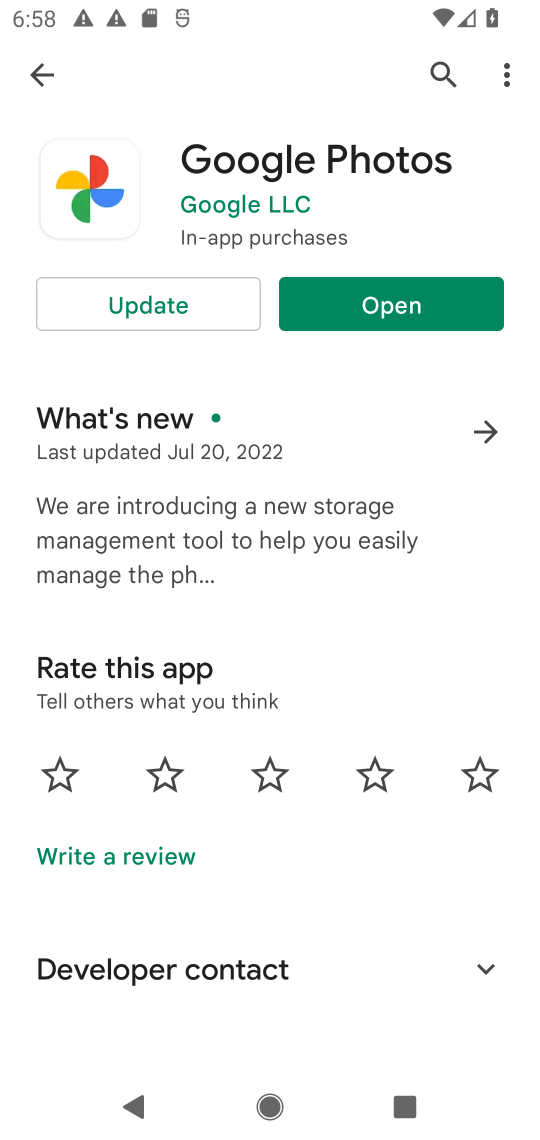
Step 51: task complete